Your task to perform on an android device: visit the assistant section in the google photos Image 0: 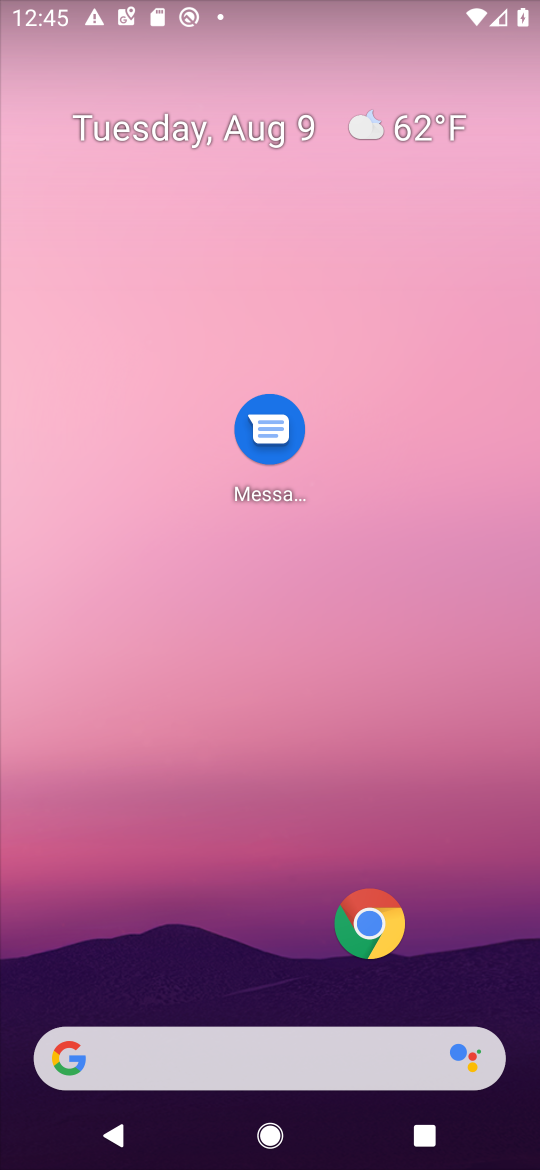
Step 0: drag from (69, 1126) to (163, 398)
Your task to perform on an android device: visit the assistant section in the google photos Image 1: 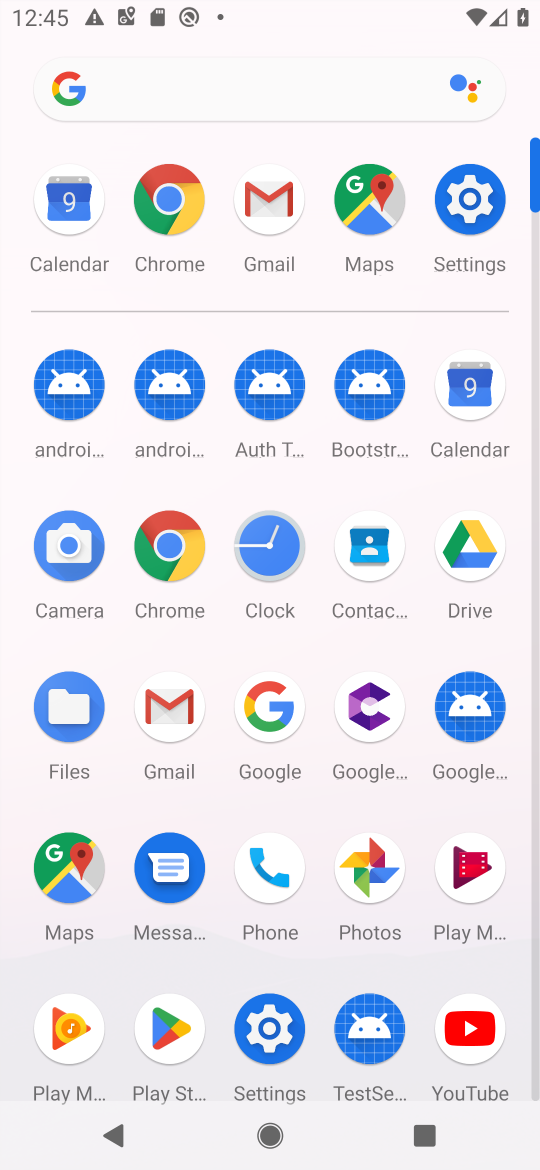
Step 1: click (385, 894)
Your task to perform on an android device: visit the assistant section in the google photos Image 2: 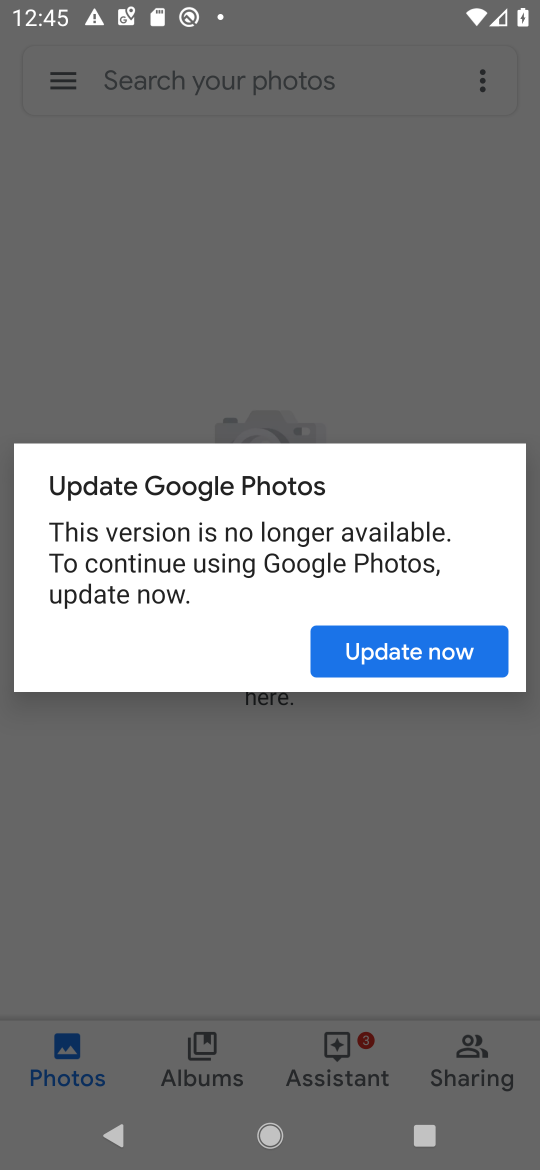
Step 2: click (387, 659)
Your task to perform on an android device: visit the assistant section in the google photos Image 3: 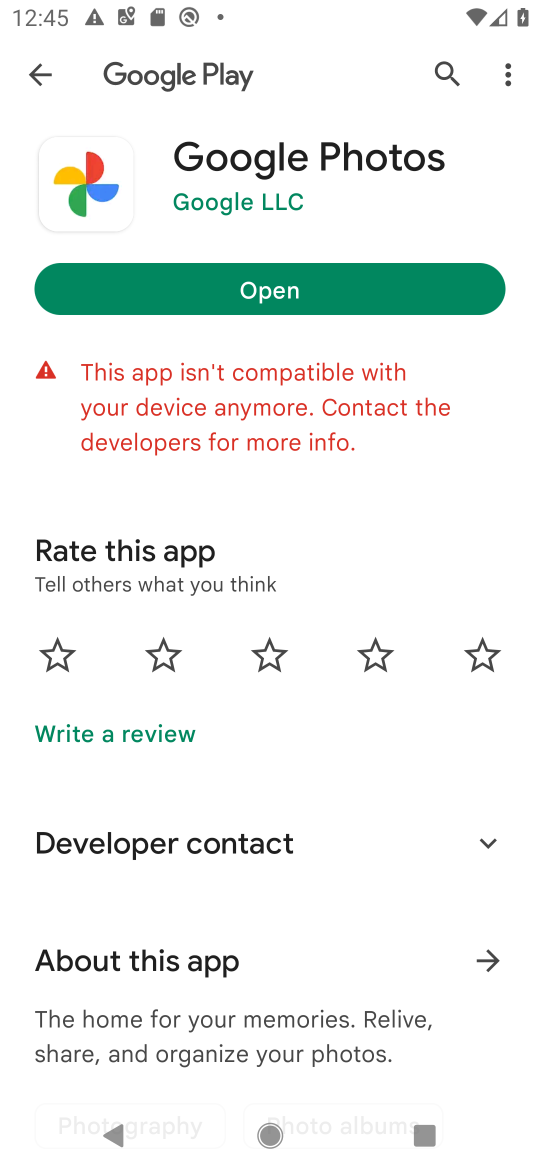
Step 3: click (209, 294)
Your task to perform on an android device: visit the assistant section in the google photos Image 4: 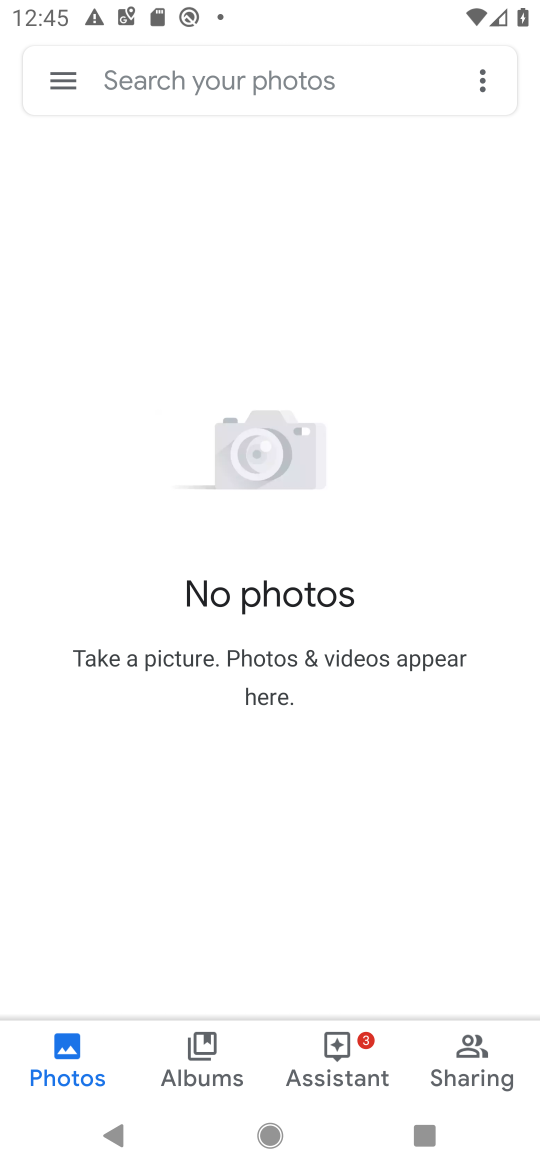
Step 4: click (352, 1052)
Your task to perform on an android device: visit the assistant section in the google photos Image 5: 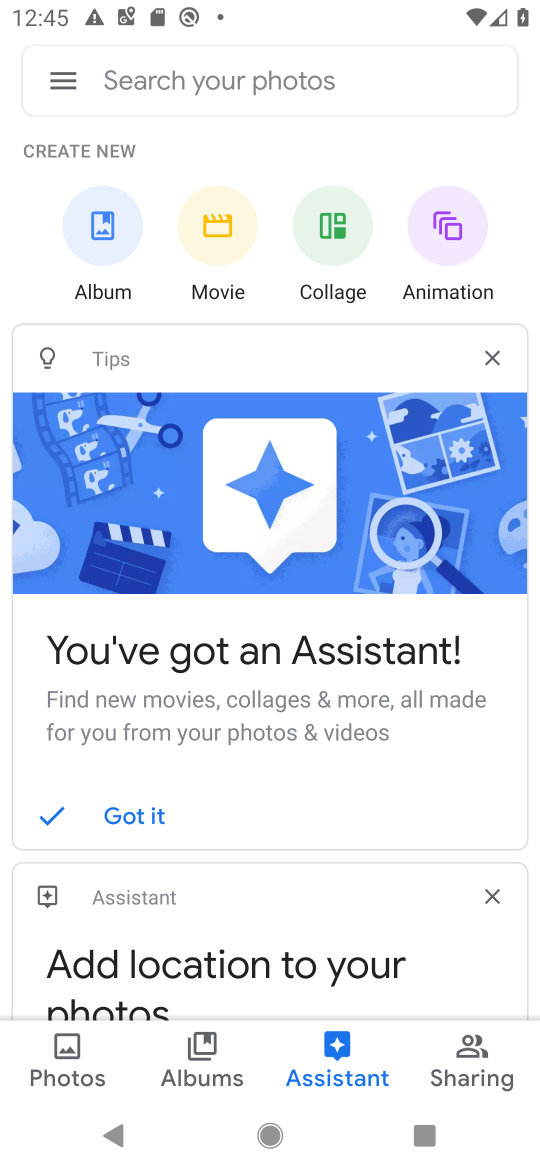
Step 5: task complete